Your task to perform on an android device: choose inbox layout in the gmail app Image 0: 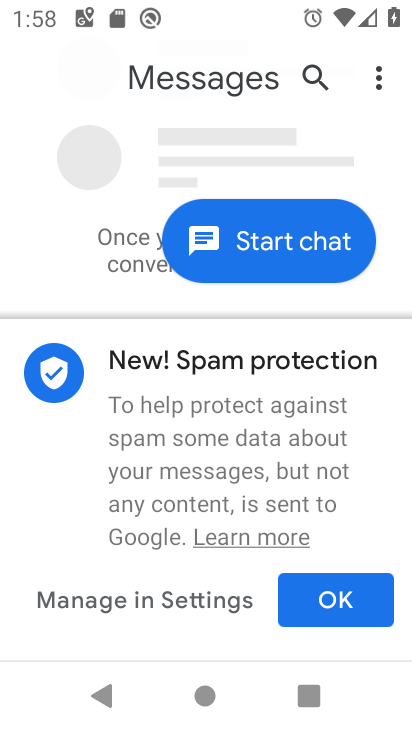
Step 0: press home button
Your task to perform on an android device: choose inbox layout in the gmail app Image 1: 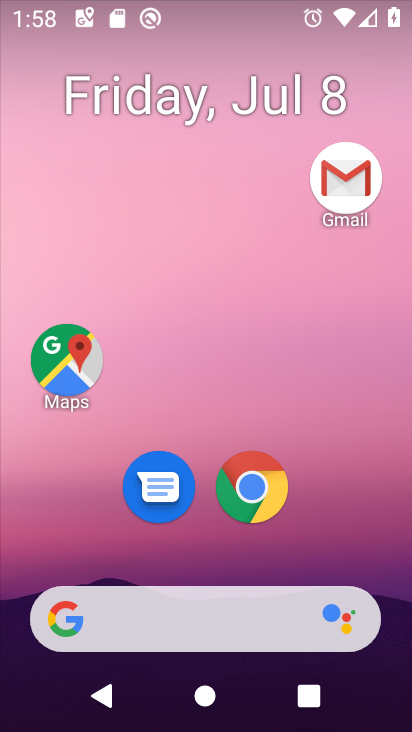
Step 1: drag from (340, 524) to (353, 230)
Your task to perform on an android device: choose inbox layout in the gmail app Image 2: 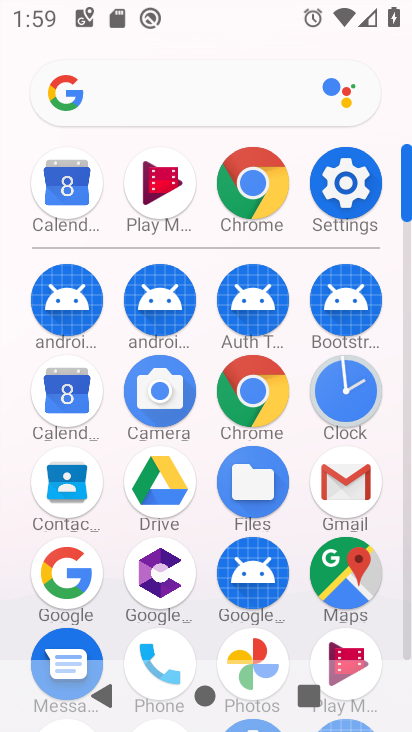
Step 2: click (349, 482)
Your task to perform on an android device: choose inbox layout in the gmail app Image 3: 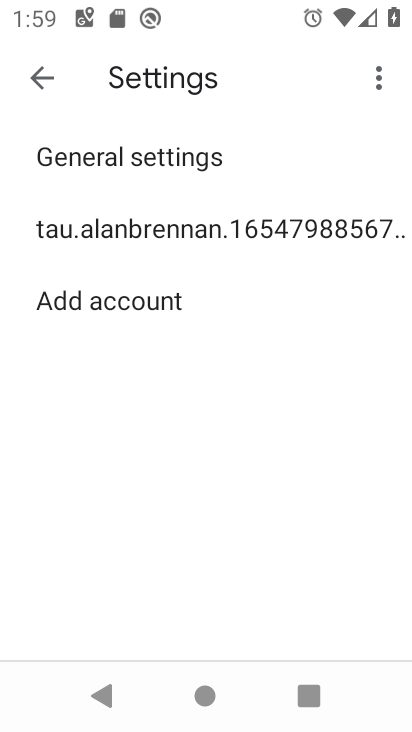
Step 3: click (219, 230)
Your task to perform on an android device: choose inbox layout in the gmail app Image 4: 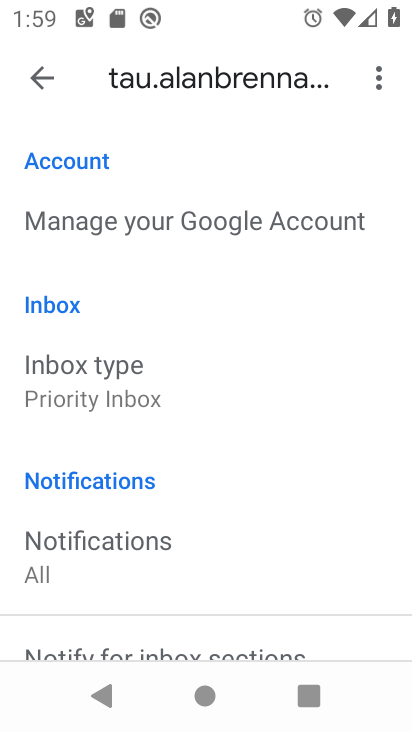
Step 4: click (173, 404)
Your task to perform on an android device: choose inbox layout in the gmail app Image 5: 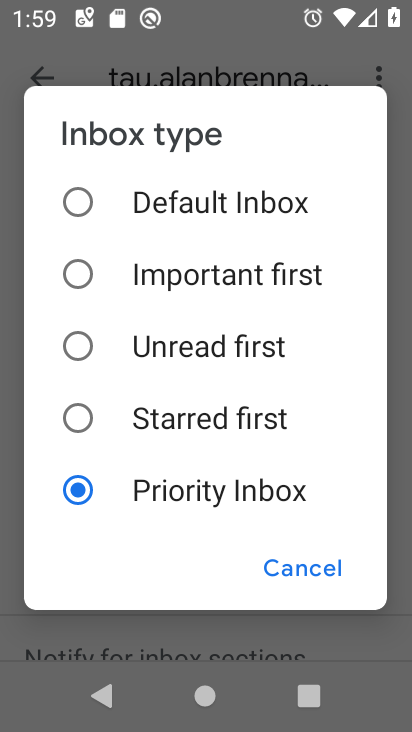
Step 5: click (68, 191)
Your task to perform on an android device: choose inbox layout in the gmail app Image 6: 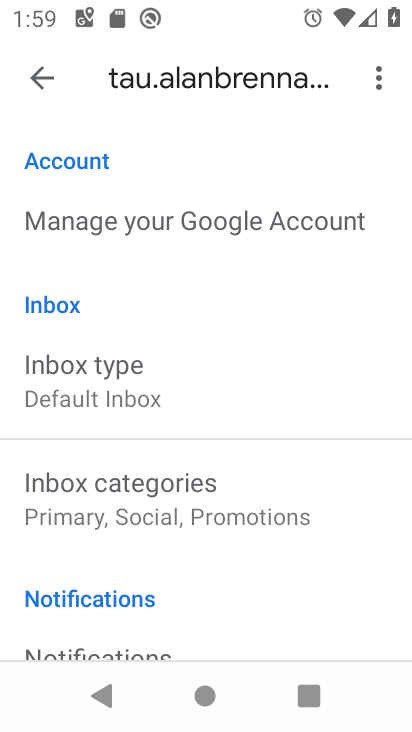
Step 6: task complete